Your task to perform on an android device: Open settings on Google Maps Image 0: 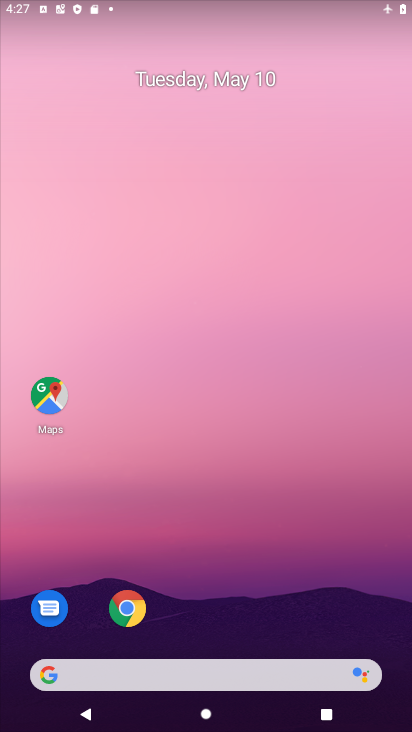
Step 0: click (46, 390)
Your task to perform on an android device: Open settings on Google Maps Image 1: 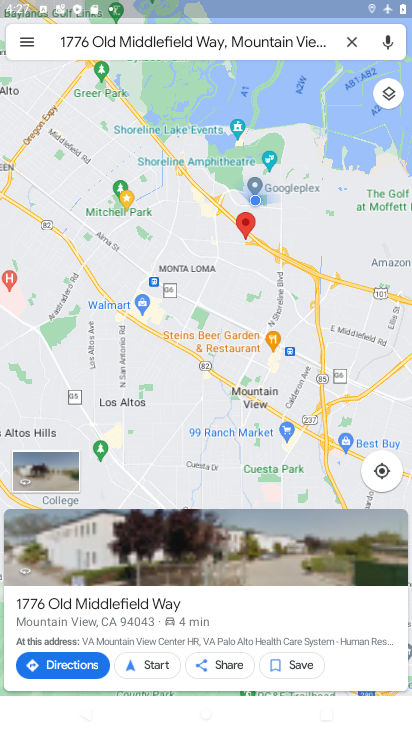
Step 1: click (25, 45)
Your task to perform on an android device: Open settings on Google Maps Image 2: 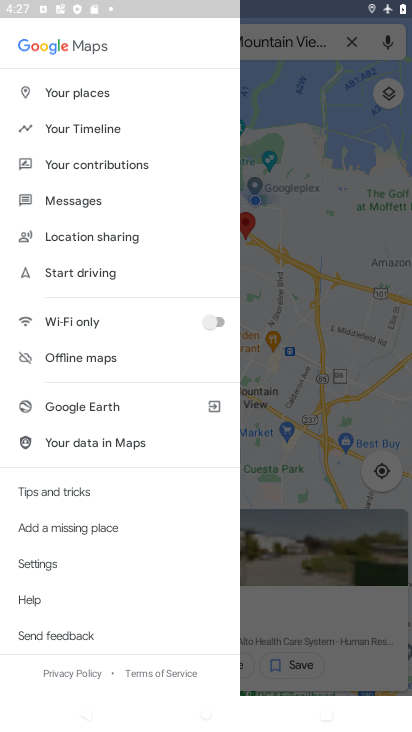
Step 2: click (38, 563)
Your task to perform on an android device: Open settings on Google Maps Image 3: 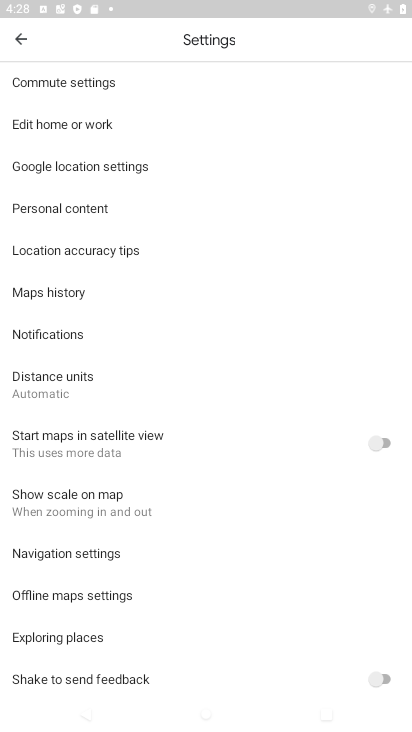
Step 3: task complete